Your task to perform on an android device: Open Chrome and go to the settings page Image 0: 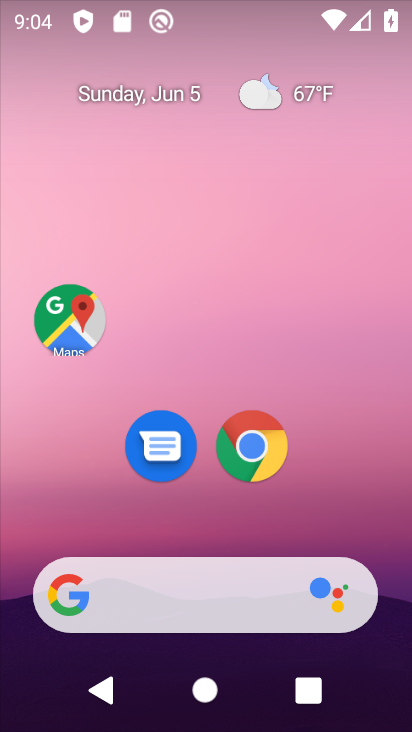
Step 0: click (260, 450)
Your task to perform on an android device: Open Chrome and go to the settings page Image 1: 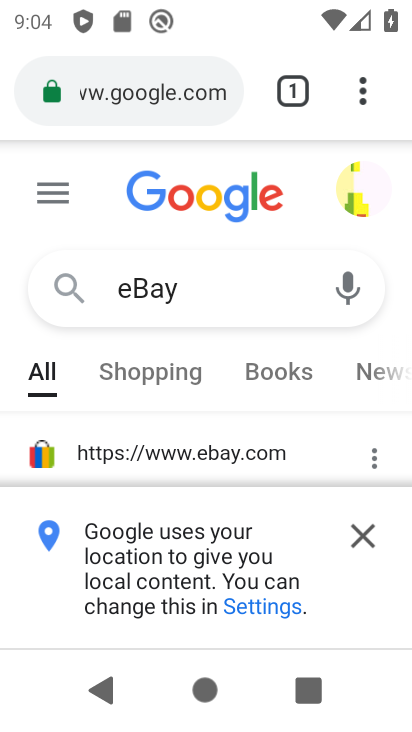
Step 1: click (355, 86)
Your task to perform on an android device: Open Chrome and go to the settings page Image 2: 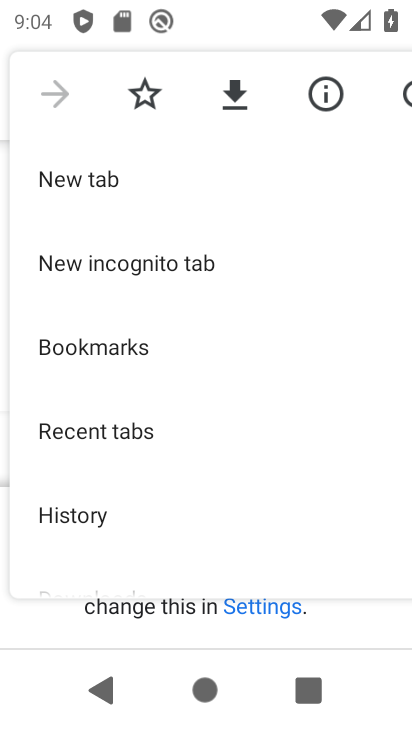
Step 2: drag from (197, 518) to (203, 215)
Your task to perform on an android device: Open Chrome and go to the settings page Image 3: 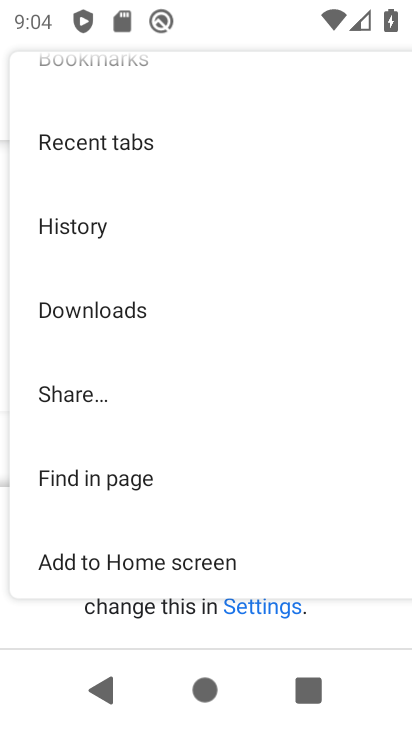
Step 3: drag from (132, 498) to (198, 215)
Your task to perform on an android device: Open Chrome and go to the settings page Image 4: 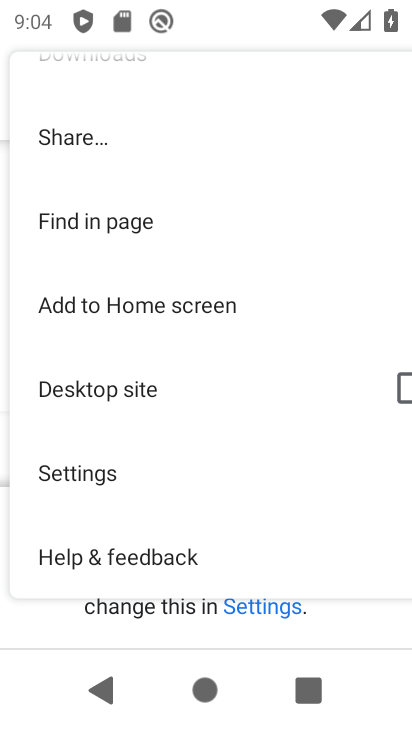
Step 4: click (136, 476)
Your task to perform on an android device: Open Chrome and go to the settings page Image 5: 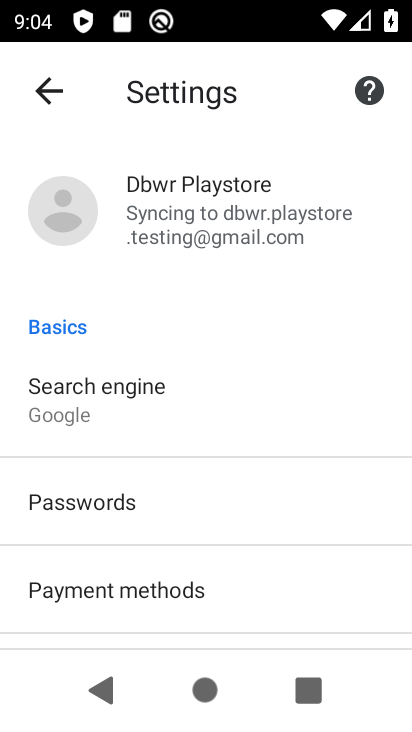
Step 5: task complete